Your task to perform on an android device: toggle wifi Image 0: 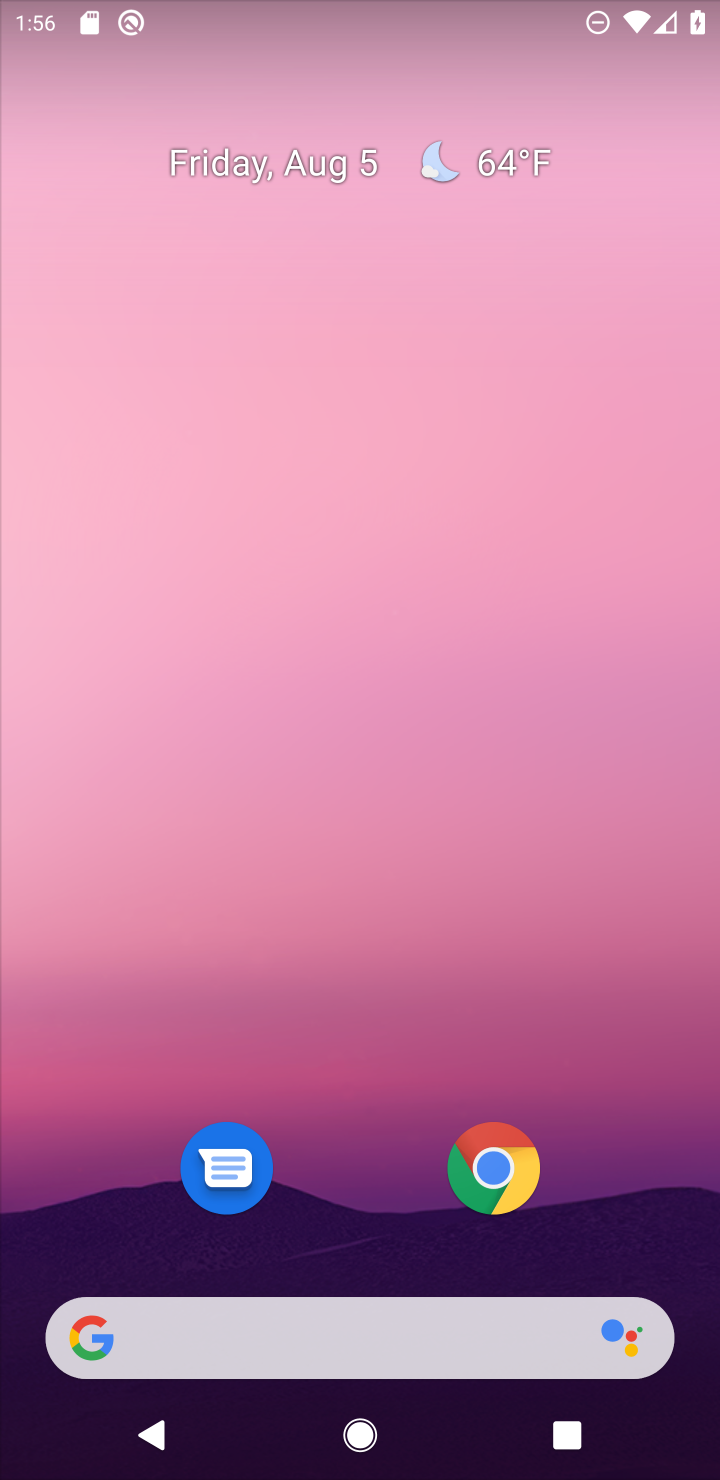
Step 0: drag from (296, 19) to (451, 1040)
Your task to perform on an android device: toggle wifi Image 1: 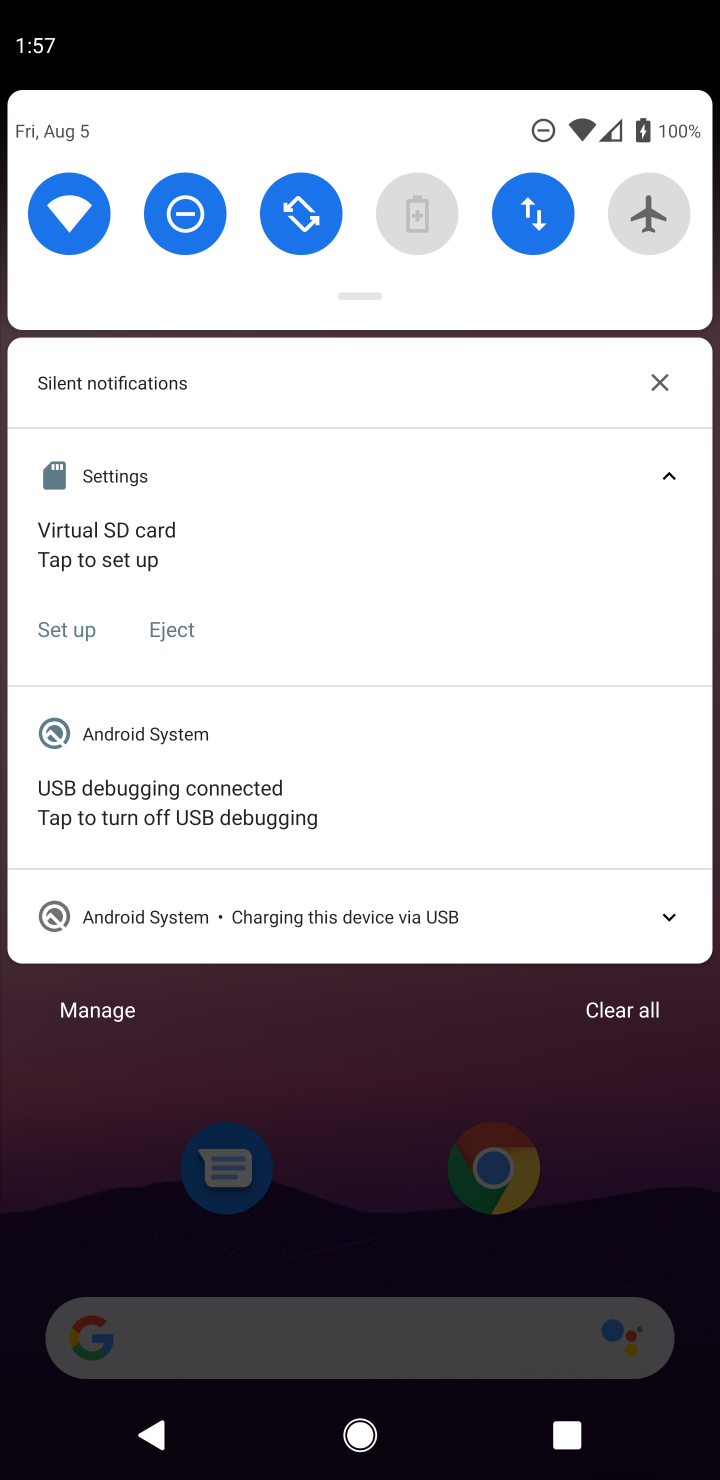
Step 1: click (55, 204)
Your task to perform on an android device: toggle wifi Image 2: 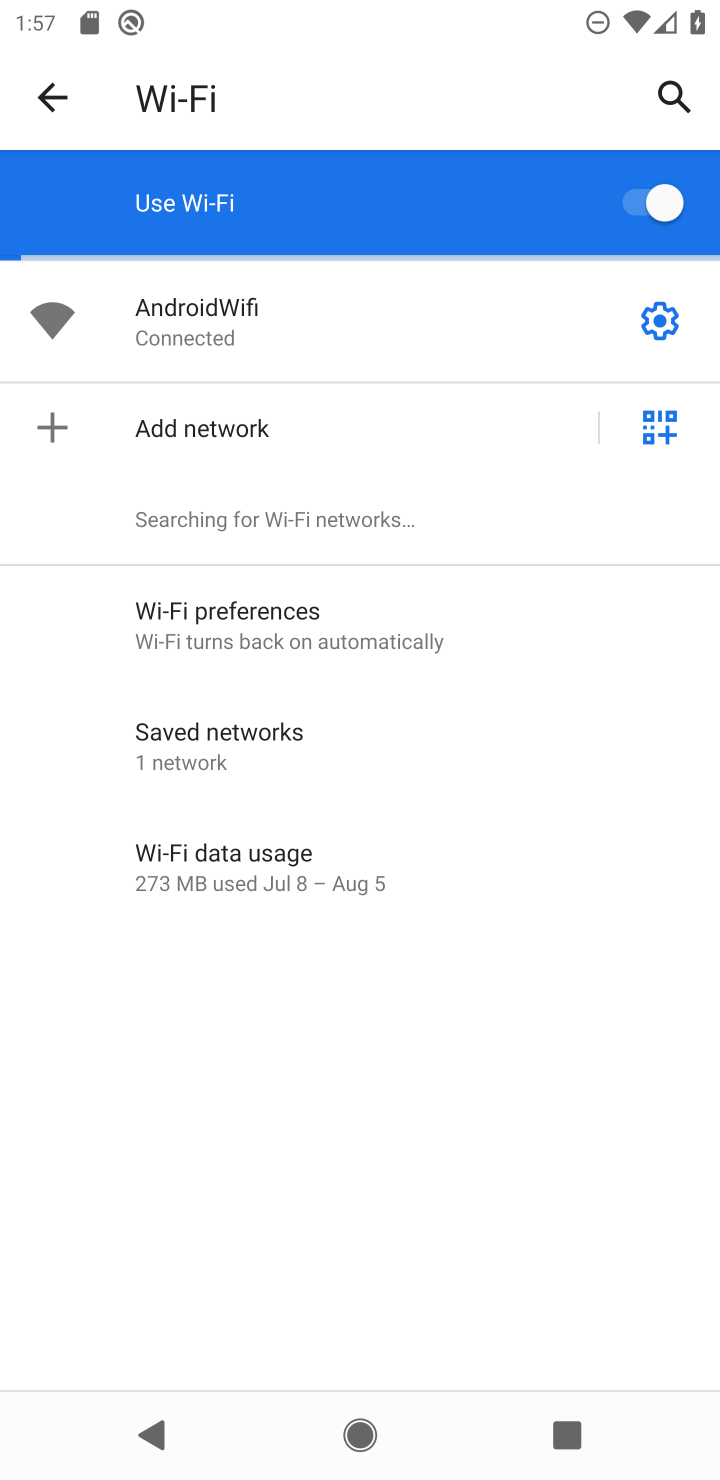
Step 2: click (663, 200)
Your task to perform on an android device: toggle wifi Image 3: 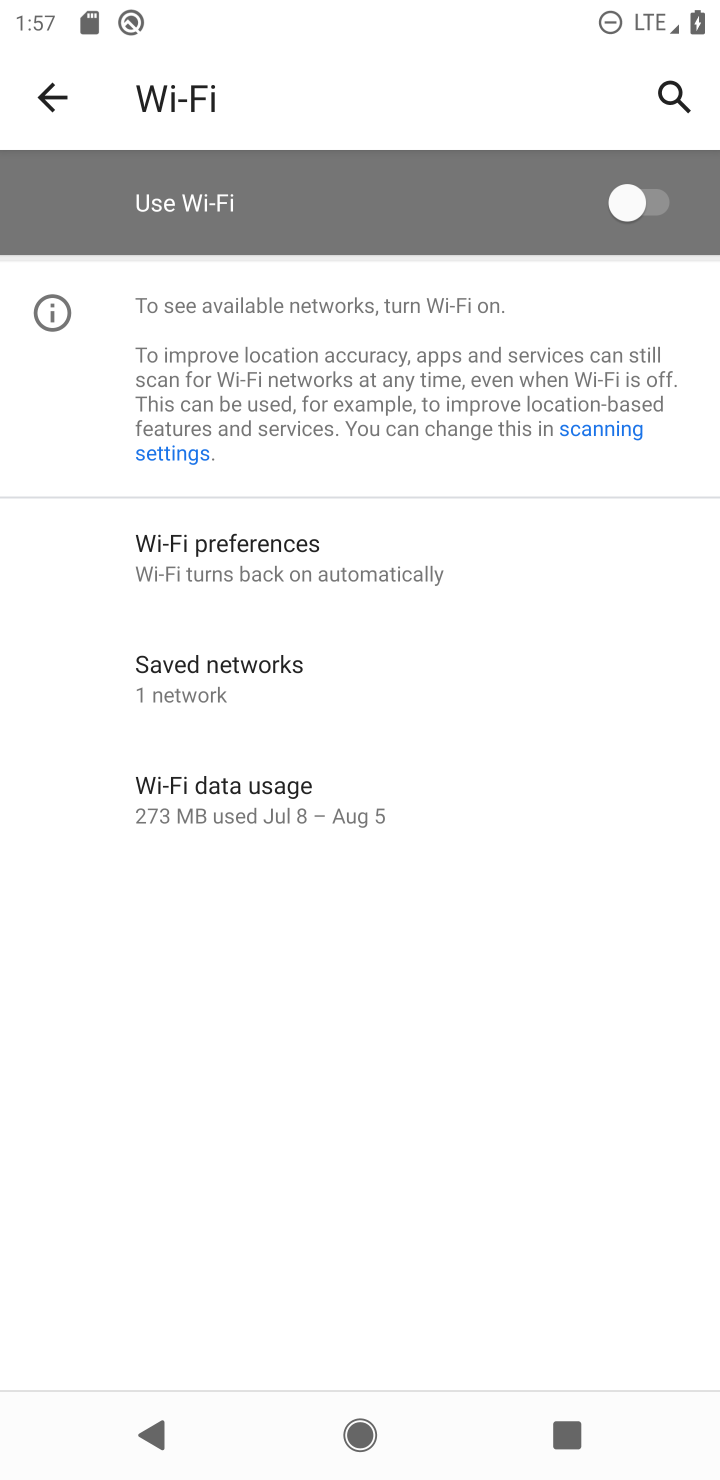
Step 3: task complete